Your task to perform on an android device: toggle show notifications on the lock screen Image 0: 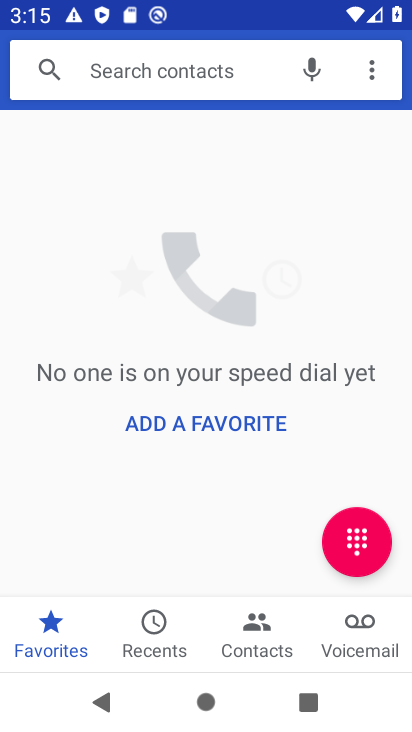
Step 0: press home button
Your task to perform on an android device: toggle show notifications on the lock screen Image 1: 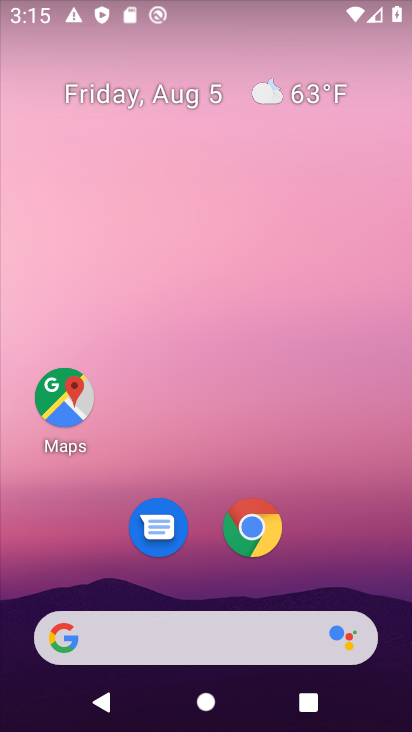
Step 1: drag from (206, 581) to (185, 27)
Your task to perform on an android device: toggle show notifications on the lock screen Image 2: 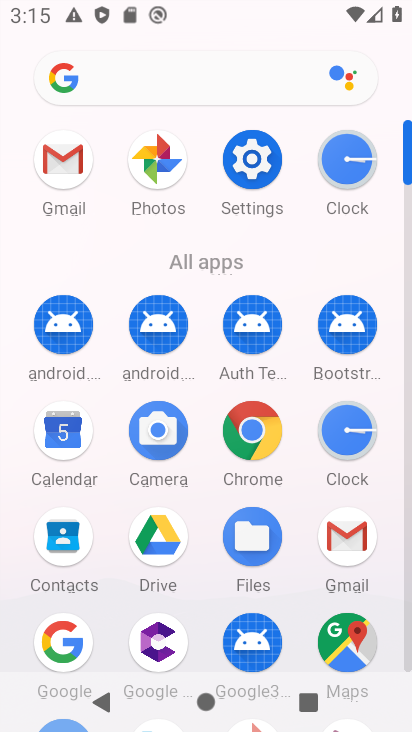
Step 2: click (257, 154)
Your task to perform on an android device: toggle show notifications on the lock screen Image 3: 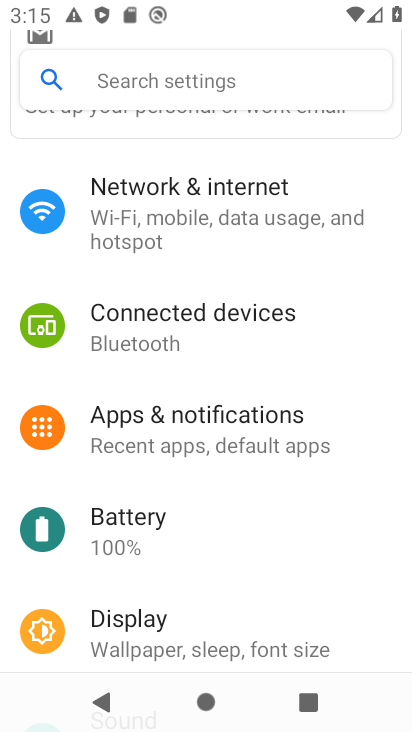
Step 3: click (202, 416)
Your task to perform on an android device: toggle show notifications on the lock screen Image 4: 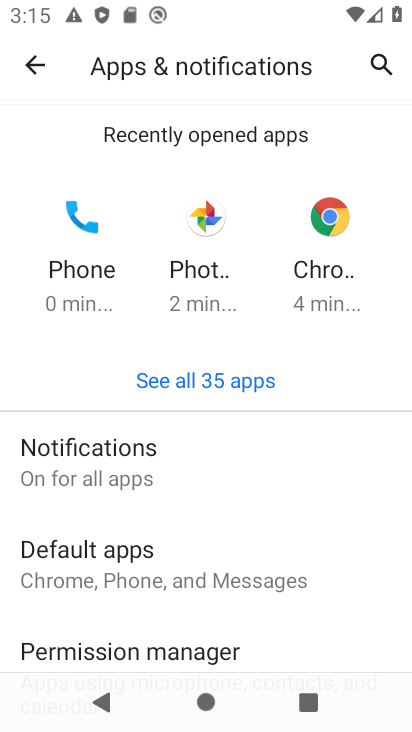
Step 4: click (86, 458)
Your task to perform on an android device: toggle show notifications on the lock screen Image 5: 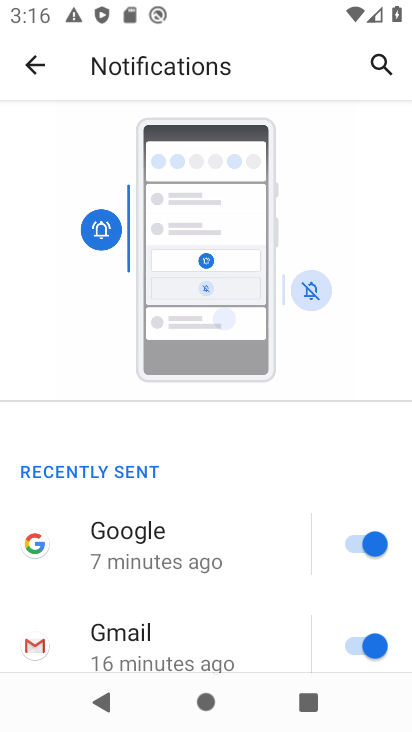
Step 5: drag from (166, 650) to (163, 354)
Your task to perform on an android device: toggle show notifications on the lock screen Image 6: 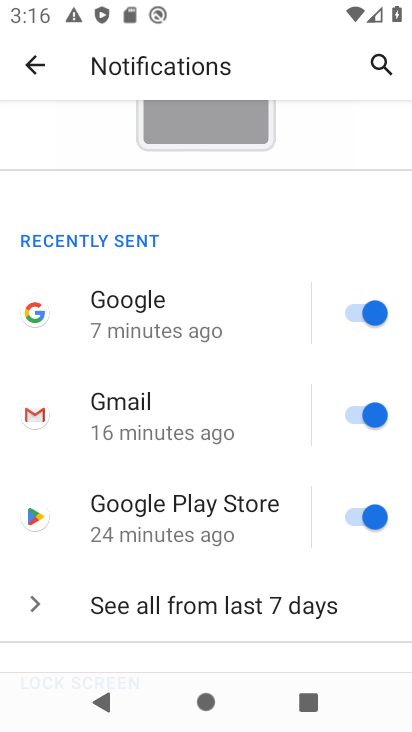
Step 6: drag from (200, 568) to (201, 369)
Your task to perform on an android device: toggle show notifications on the lock screen Image 7: 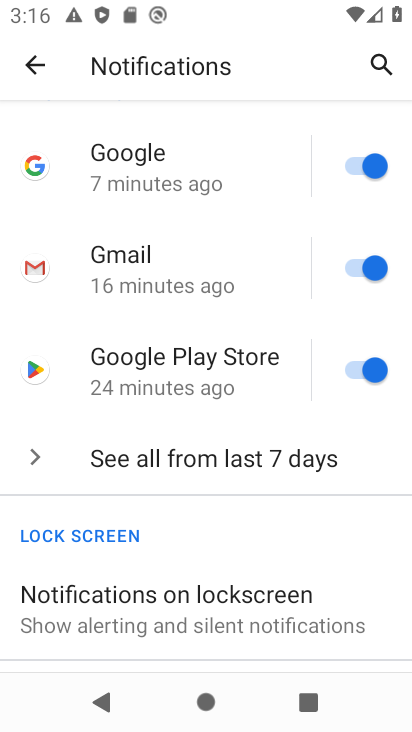
Step 7: drag from (181, 605) to (172, 401)
Your task to perform on an android device: toggle show notifications on the lock screen Image 8: 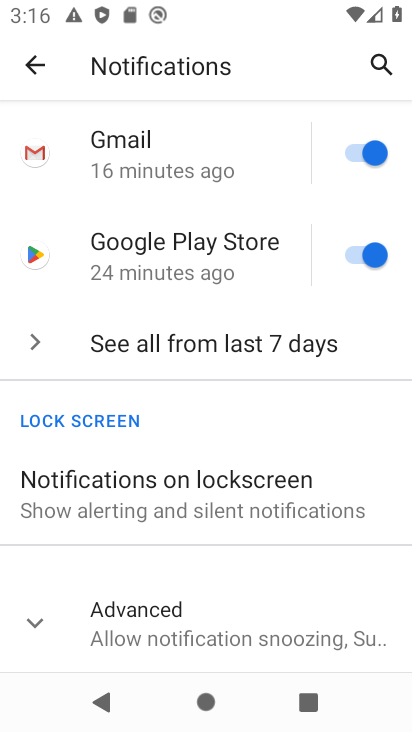
Step 8: drag from (203, 610) to (203, 390)
Your task to perform on an android device: toggle show notifications on the lock screen Image 9: 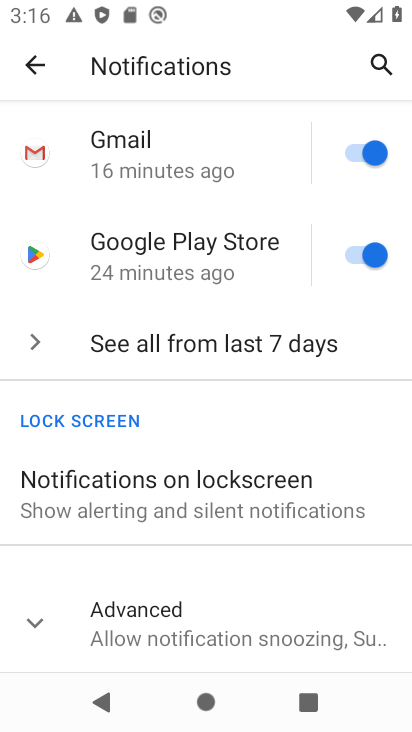
Step 9: click (146, 498)
Your task to perform on an android device: toggle show notifications on the lock screen Image 10: 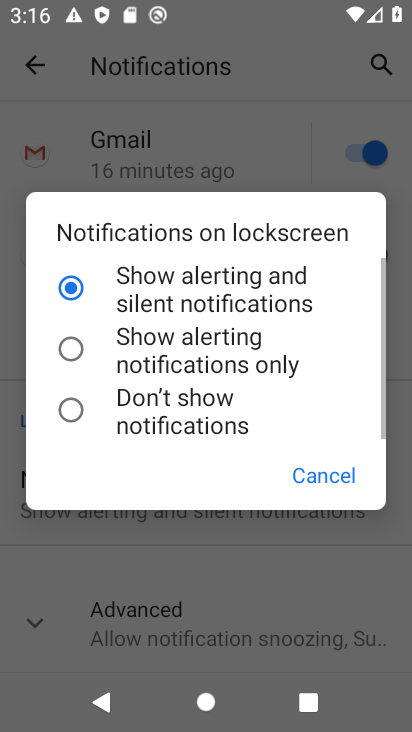
Step 10: click (73, 348)
Your task to perform on an android device: toggle show notifications on the lock screen Image 11: 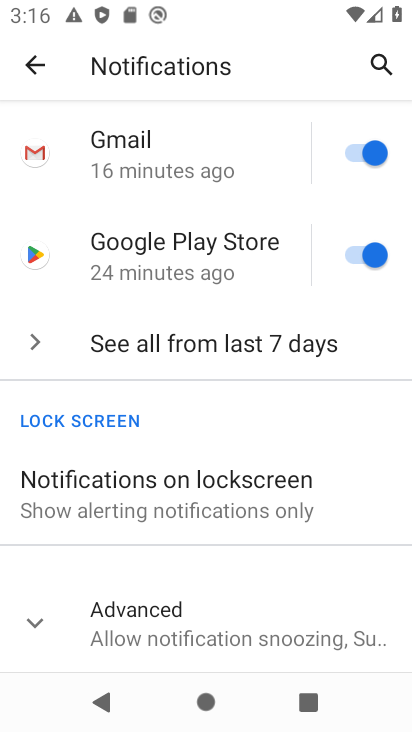
Step 11: task complete